Your task to perform on an android device: see tabs open on other devices in the chrome app Image 0: 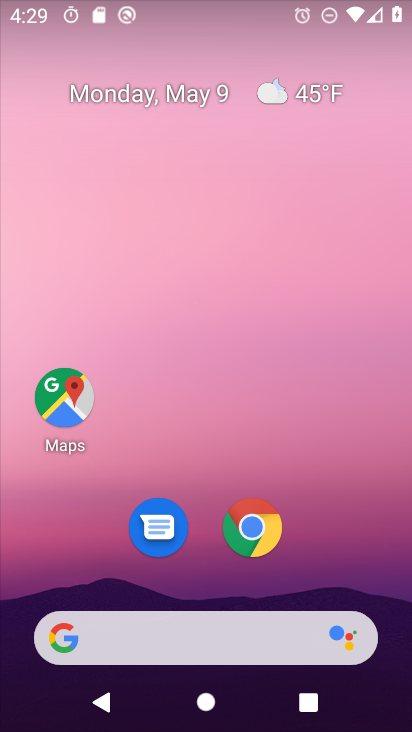
Step 0: click (261, 532)
Your task to perform on an android device: see tabs open on other devices in the chrome app Image 1: 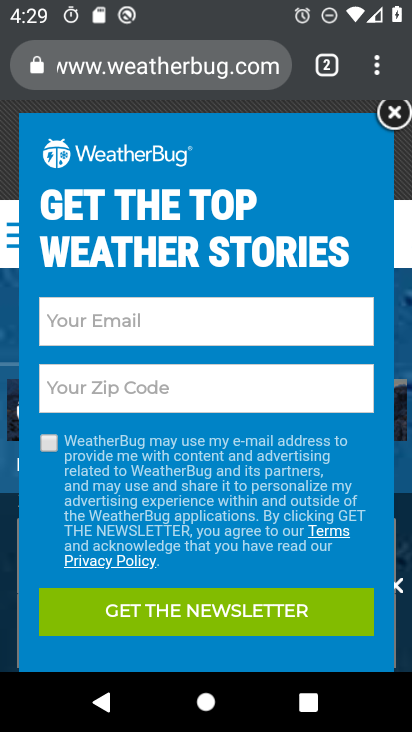
Step 1: click (384, 71)
Your task to perform on an android device: see tabs open on other devices in the chrome app Image 2: 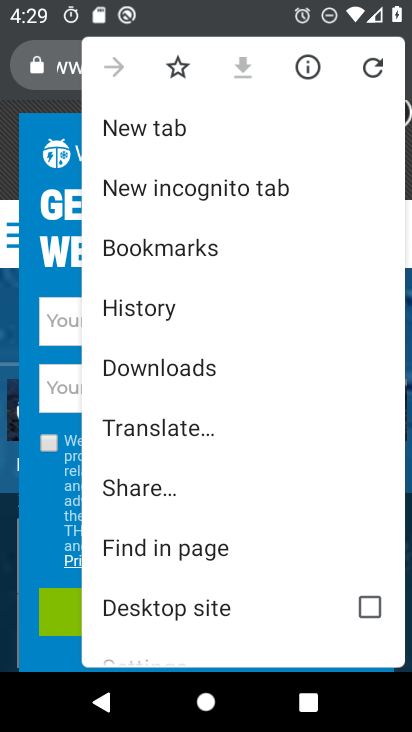
Step 2: drag from (273, 514) to (263, 571)
Your task to perform on an android device: see tabs open on other devices in the chrome app Image 3: 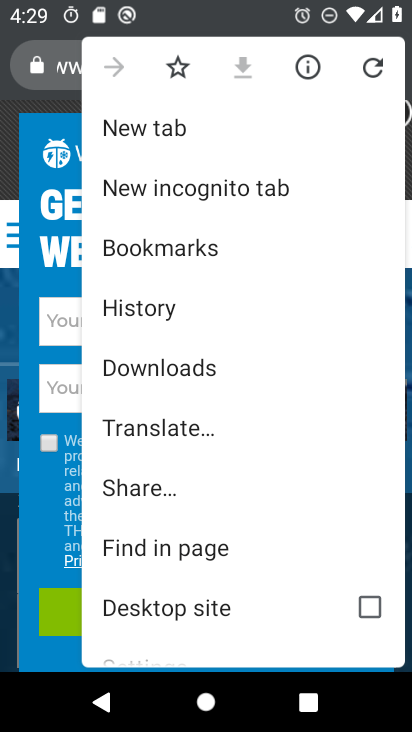
Step 3: drag from (256, 605) to (251, 209)
Your task to perform on an android device: see tabs open on other devices in the chrome app Image 4: 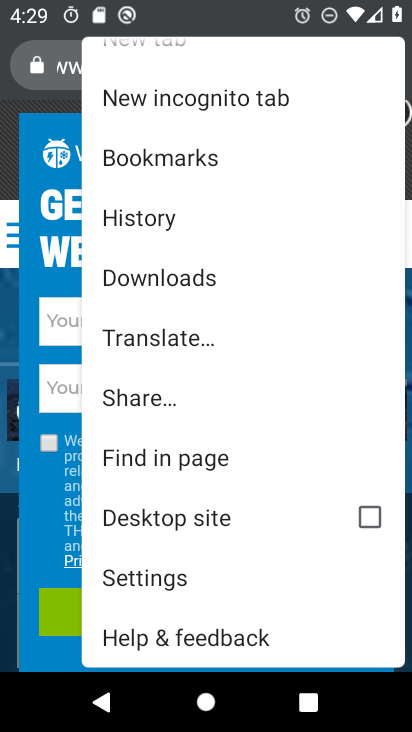
Step 4: click (195, 584)
Your task to perform on an android device: see tabs open on other devices in the chrome app Image 5: 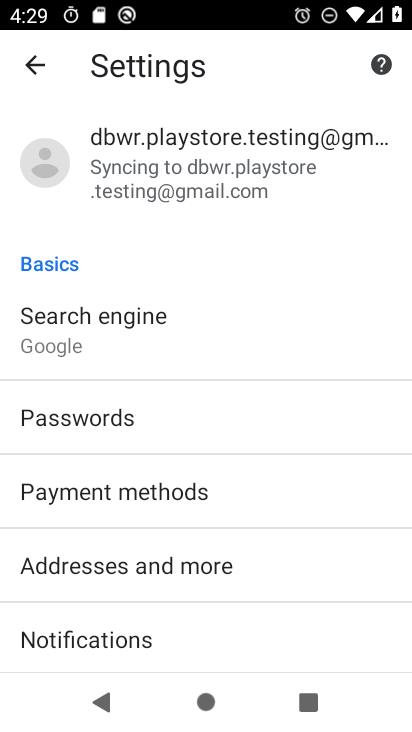
Step 5: task complete